Your task to perform on an android device: change the clock display to digital Image 0: 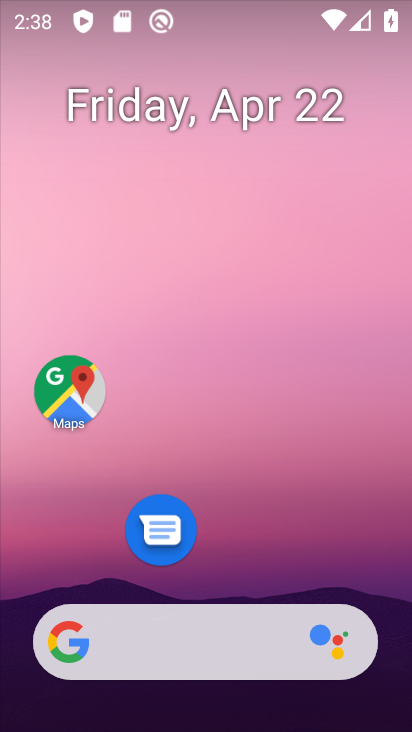
Step 0: drag from (237, 564) to (169, 30)
Your task to perform on an android device: change the clock display to digital Image 1: 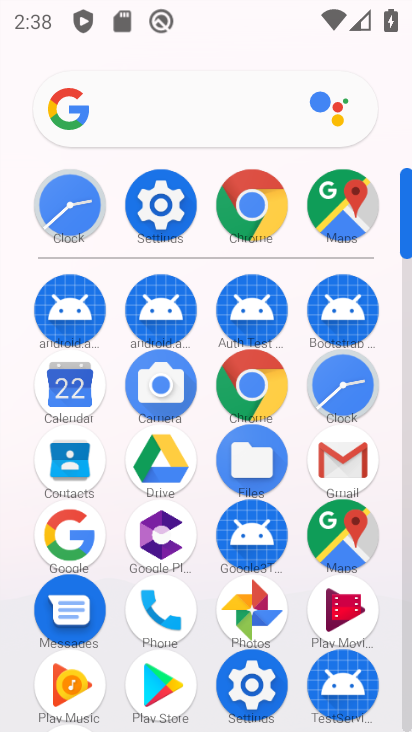
Step 1: click (344, 390)
Your task to perform on an android device: change the clock display to digital Image 2: 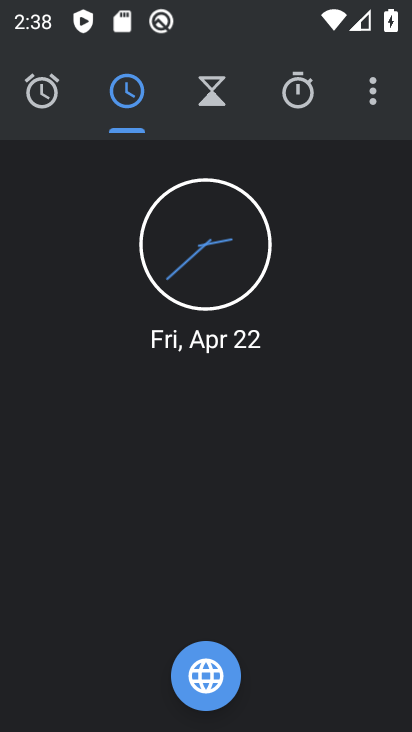
Step 2: click (378, 90)
Your task to perform on an android device: change the clock display to digital Image 3: 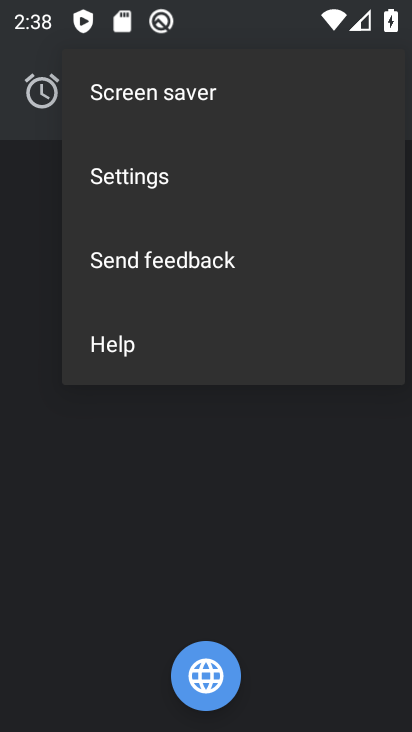
Step 3: click (147, 177)
Your task to perform on an android device: change the clock display to digital Image 4: 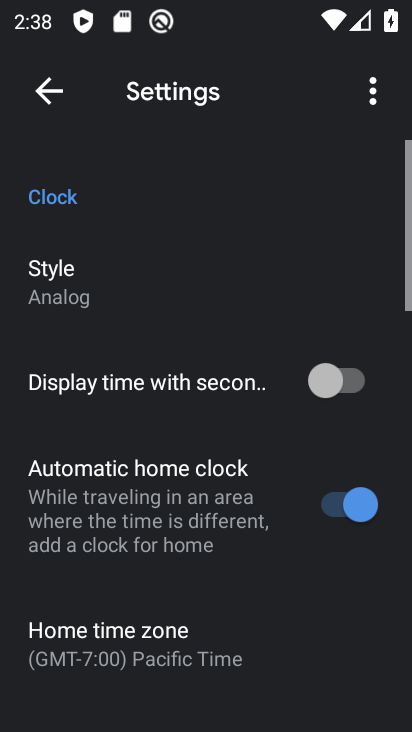
Step 4: click (58, 294)
Your task to perform on an android device: change the clock display to digital Image 5: 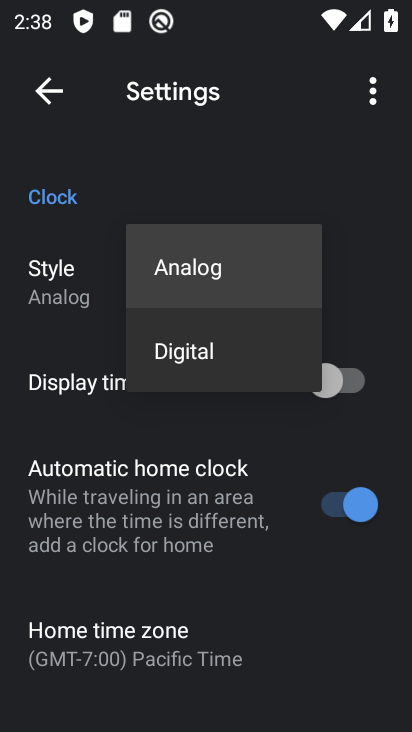
Step 5: click (191, 358)
Your task to perform on an android device: change the clock display to digital Image 6: 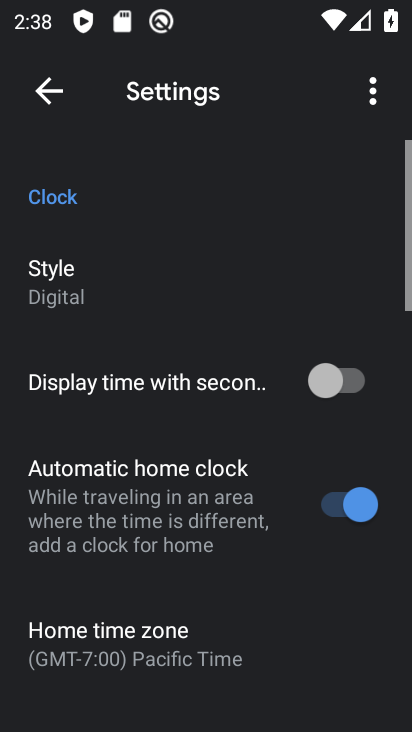
Step 6: task complete